Your task to perform on an android device: change the clock display to analog Image 0: 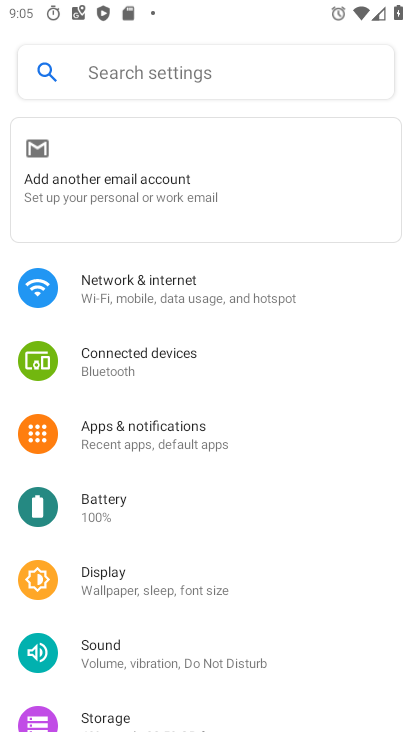
Step 0: press home button
Your task to perform on an android device: change the clock display to analog Image 1: 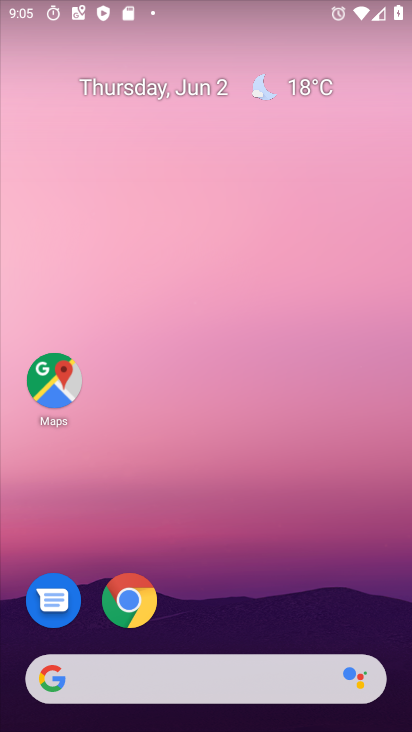
Step 1: drag from (354, 577) to (349, 225)
Your task to perform on an android device: change the clock display to analog Image 2: 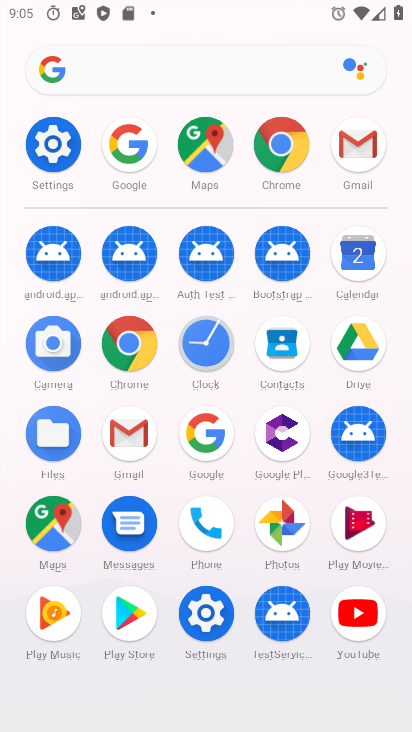
Step 2: click (211, 340)
Your task to perform on an android device: change the clock display to analog Image 3: 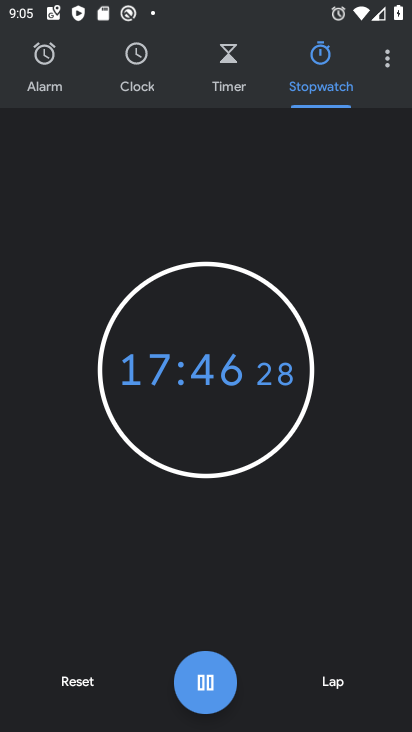
Step 3: click (387, 76)
Your task to perform on an android device: change the clock display to analog Image 4: 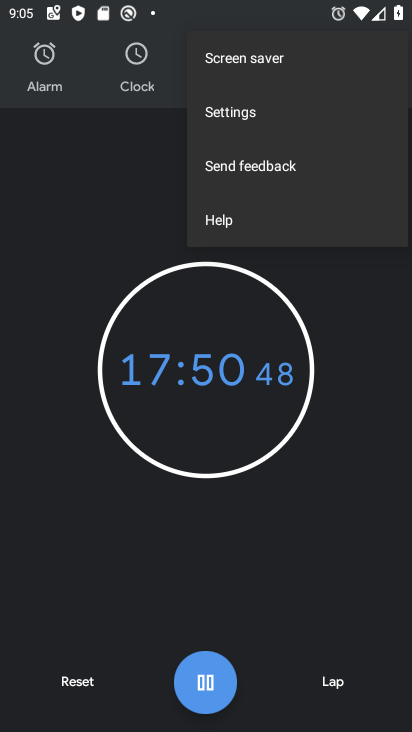
Step 4: click (279, 116)
Your task to perform on an android device: change the clock display to analog Image 5: 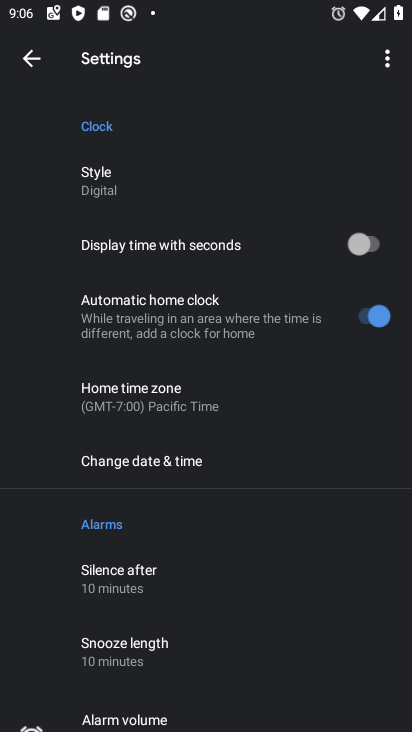
Step 5: drag from (317, 578) to (322, 465)
Your task to perform on an android device: change the clock display to analog Image 6: 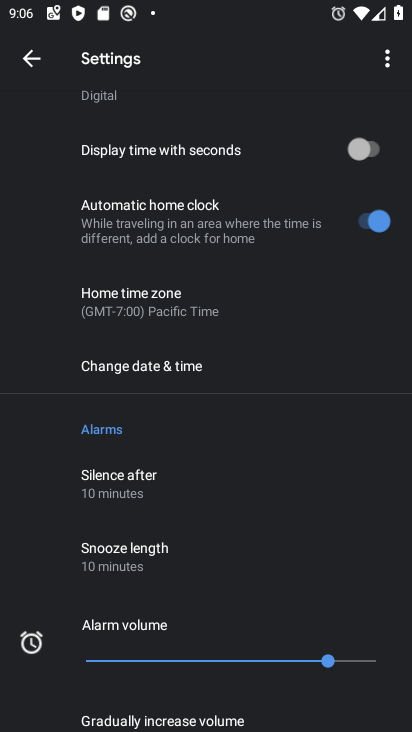
Step 6: drag from (328, 534) to (330, 440)
Your task to perform on an android device: change the clock display to analog Image 7: 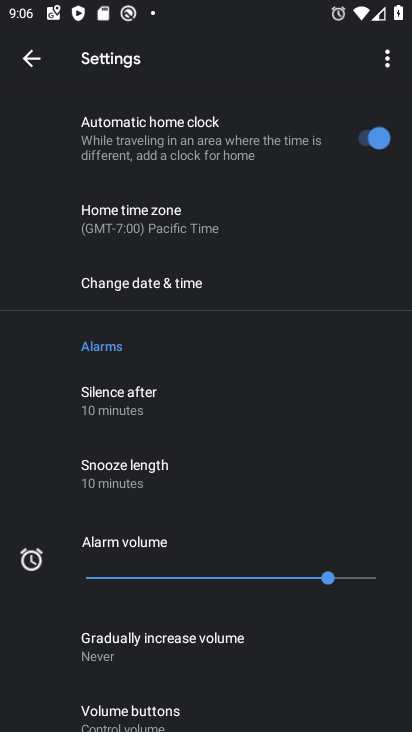
Step 7: drag from (332, 519) to (337, 406)
Your task to perform on an android device: change the clock display to analog Image 8: 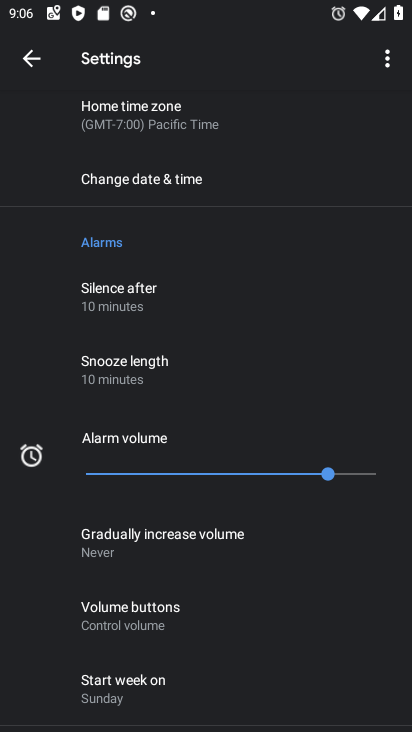
Step 8: drag from (345, 539) to (358, 429)
Your task to perform on an android device: change the clock display to analog Image 9: 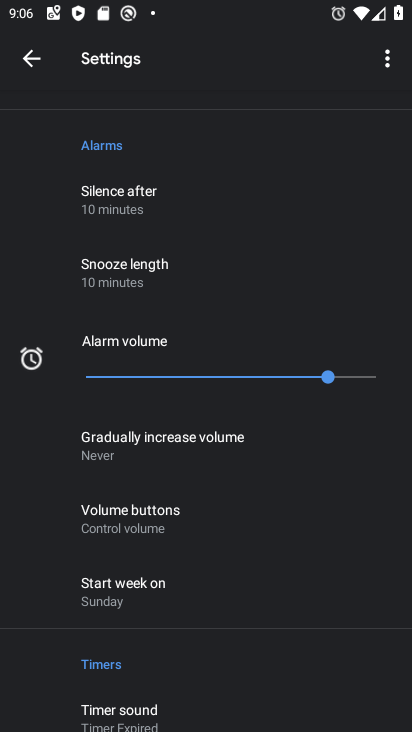
Step 9: drag from (356, 584) to (349, 465)
Your task to perform on an android device: change the clock display to analog Image 10: 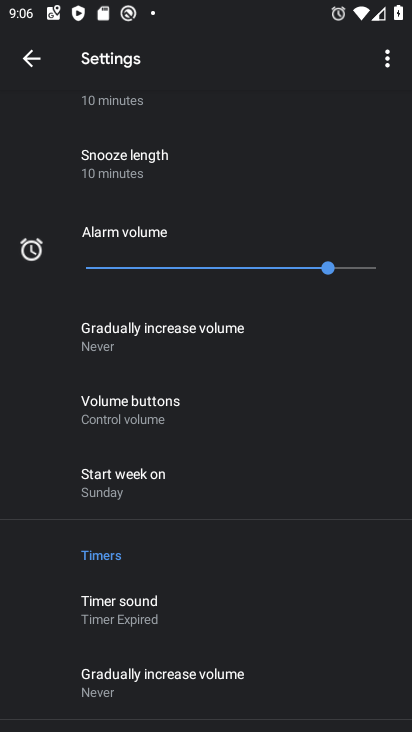
Step 10: drag from (346, 517) to (352, 263)
Your task to perform on an android device: change the clock display to analog Image 11: 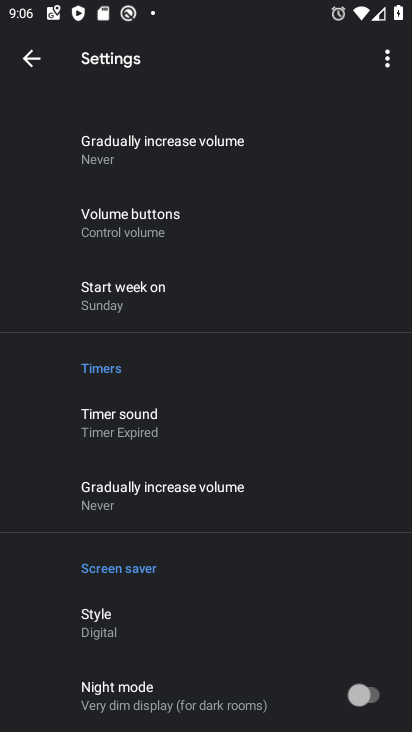
Step 11: drag from (351, 281) to (353, 395)
Your task to perform on an android device: change the clock display to analog Image 12: 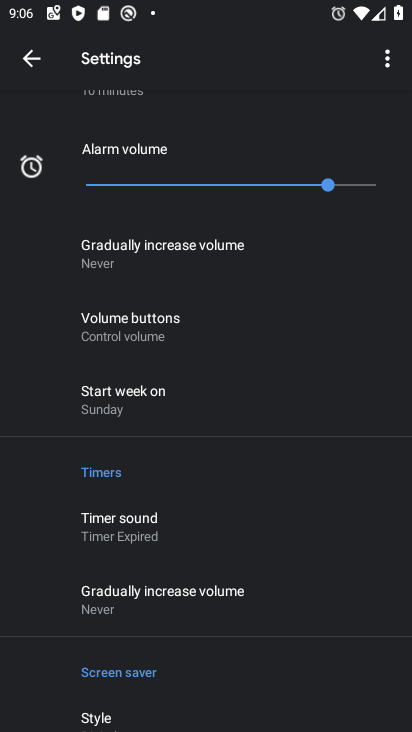
Step 12: drag from (346, 255) to (347, 372)
Your task to perform on an android device: change the clock display to analog Image 13: 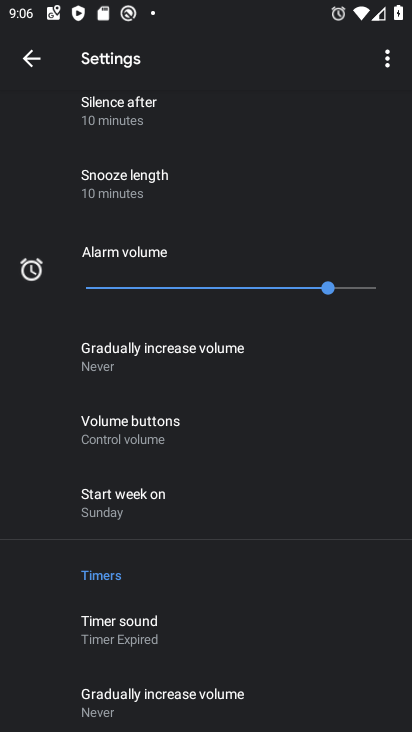
Step 13: drag from (358, 238) to (357, 392)
Your task to perform on an android device: change the clock display to analog Image 14: 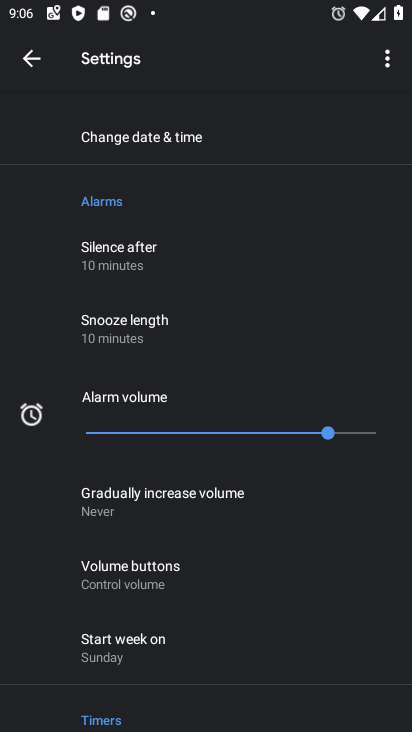
Step 14: drag from (359, 246) to (358, 403)
Your task to perform on an android device: change the clock display to analog Image 15: 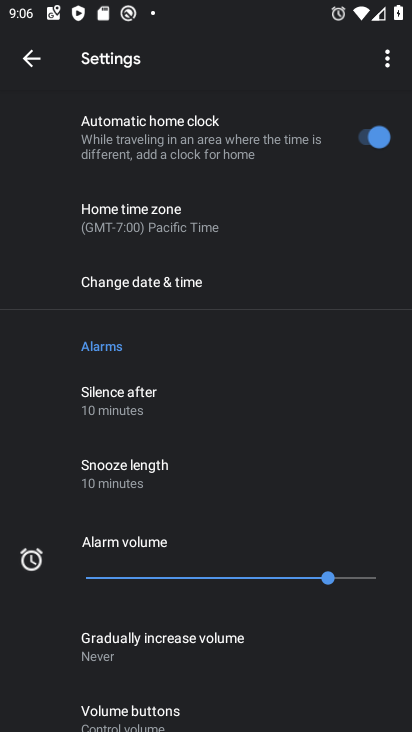
Step 15: drag from (344, 279) to (344, 437)
Your task to perform on an android device: change the clock display to analog Image 16: 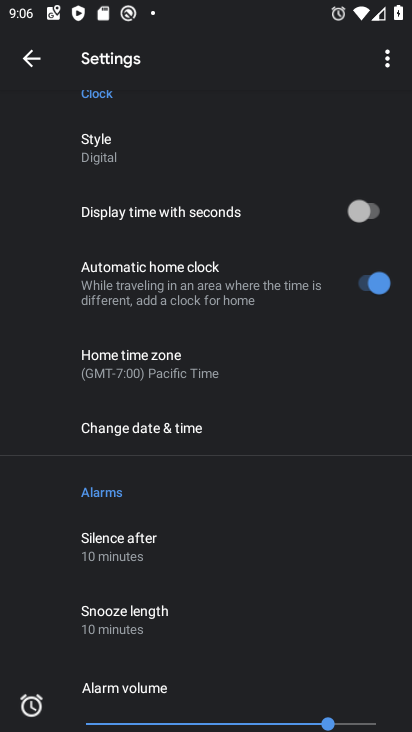
Step 16: drag from (314, 210) to (304, 357)
Your task to perform on an android device: change the clock display to analog Image 17: 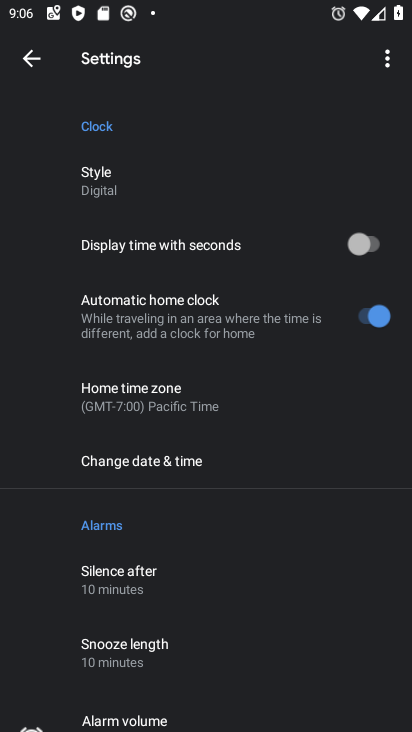
Step 17: click (99, 200)
Your task to perform on an android device: change the clock display to analog Image 18: 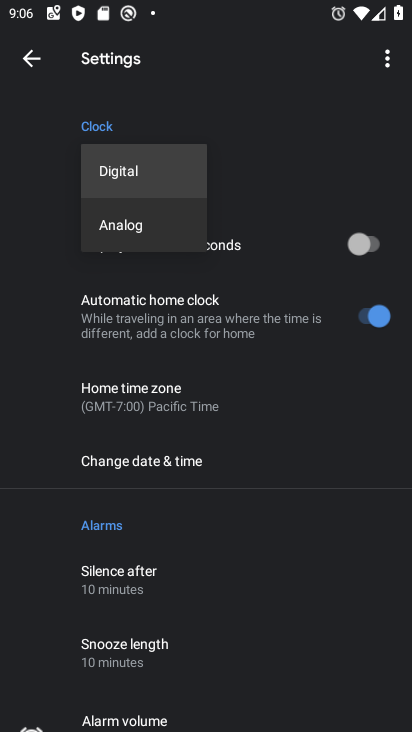
Step 18: click (121, 222)
Your task to perform on an android device: change the clock display to analog Image 19: 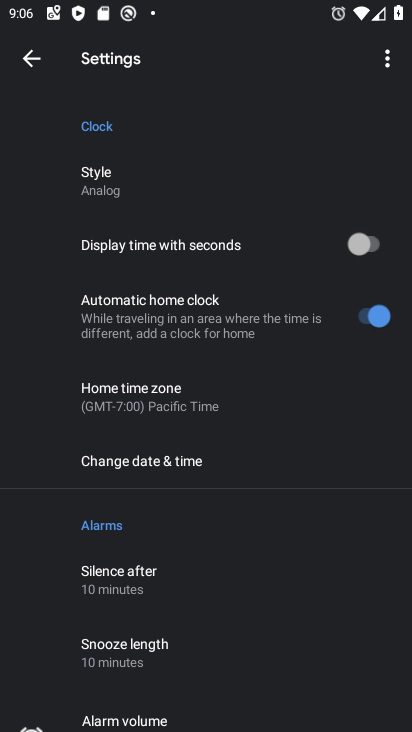
Step 19: task complete